Your task to perform on an android device: What's the weather going to be this weekend? Image 0: 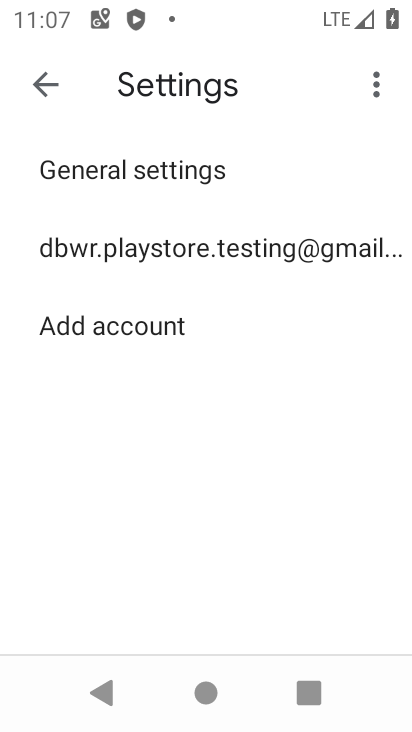
Step 0: press home button
Your task to perform on an android device: What's the weather going to be this weekend? Image 1: 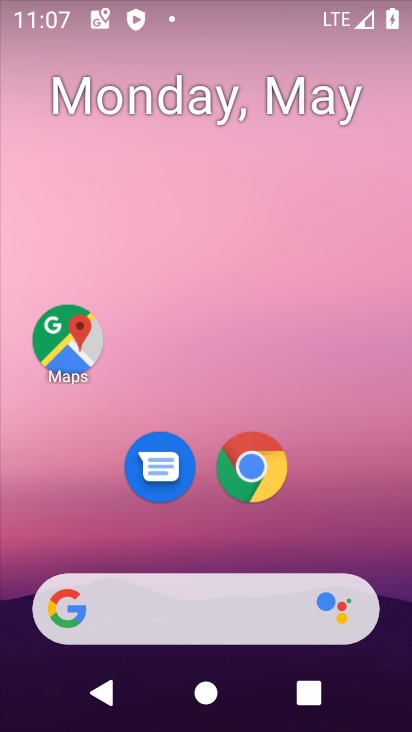
Step 1: drag from (1, 278) to (398, 205)
Your task to perform on an android device: What's the weather going to be this weekend? Image 2: 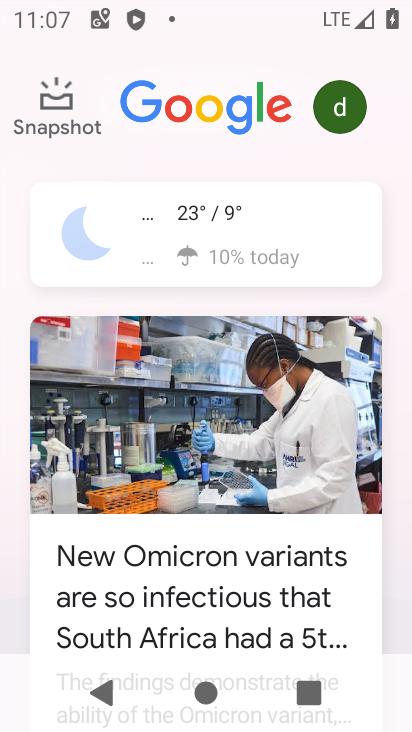
Step 2: click (208, 225)
Your task to perform on an android device: What's the weather going to be this weekend? Image 3: 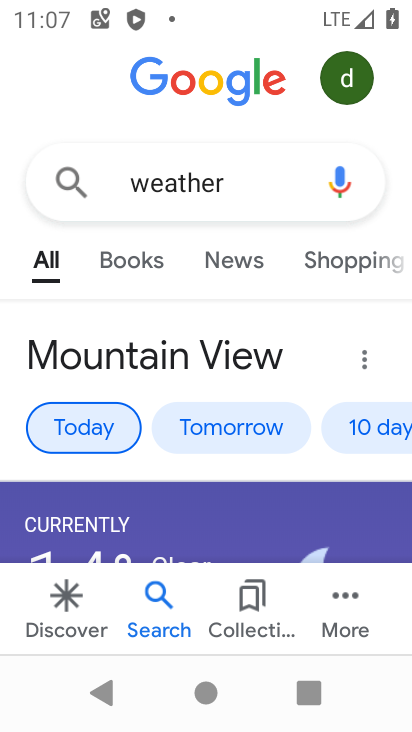
Step 3: drag from (174, 525) to (175, 210)
Your task to perform on an android device: What's the weather going to be this weekend? Image 4: 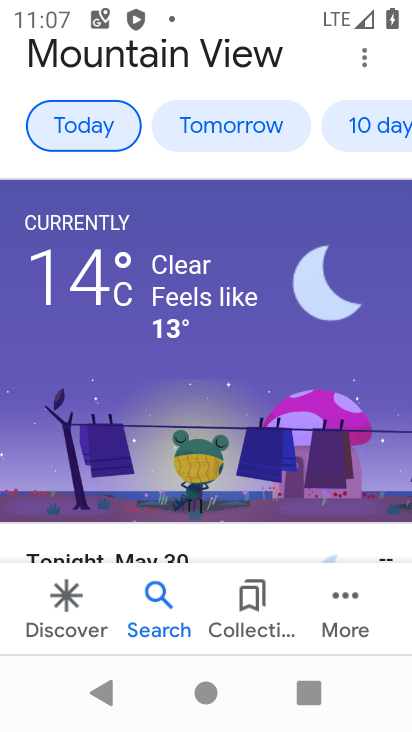
Step 4: click (388, 117)
Your task to perform on an android device: What's the weather going to be this weekend? Image 5: 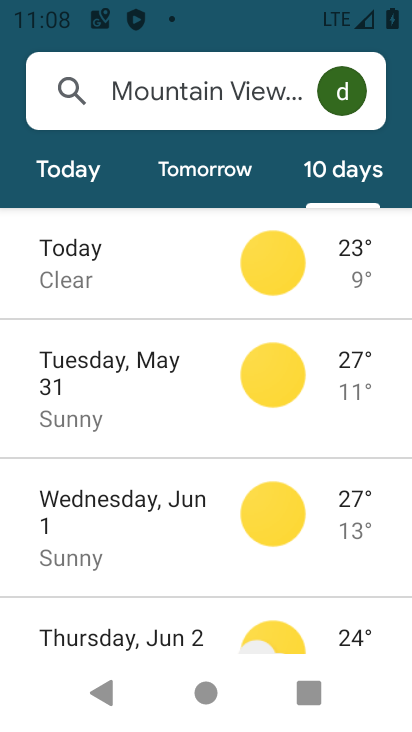
Step 5: task complete